Your task to perform on an android device: Open my contact list Image 0: 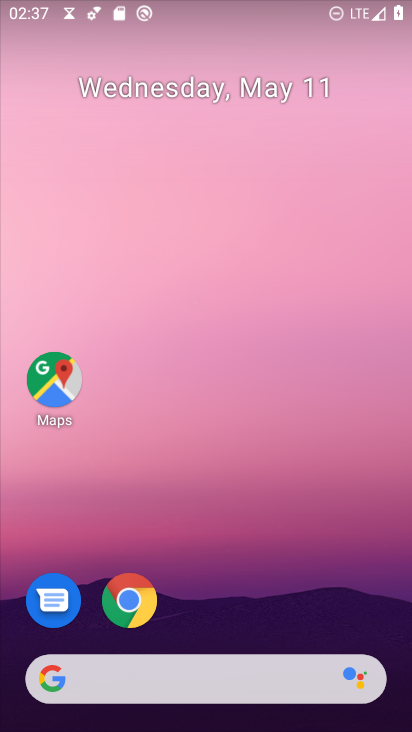
Step 0: drag from (263, 539) to (253, 205)
Your task to perform on an android device: Open my contact list Image 1: 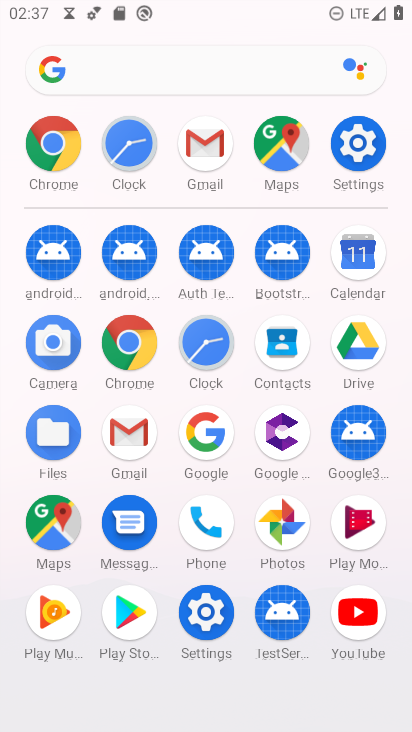
Step 1: click (213, 519)
Your task to perform on an android device: Open my contact list Image 2: 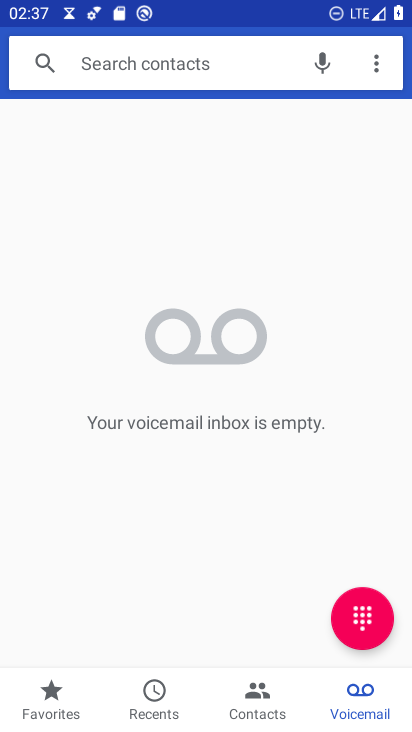
Step 2: click (249, 697)
Your task to perform on an android device: Open my contact list Image 3: 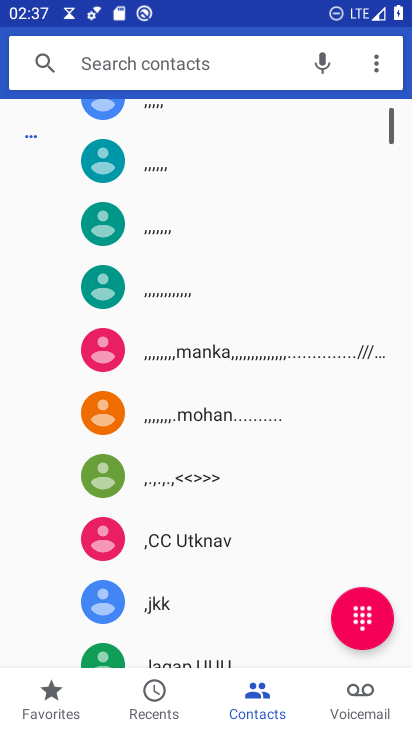
Step 3: task complete